Your task to perform on an android device: see sites visited before in the chrome app Image 0: 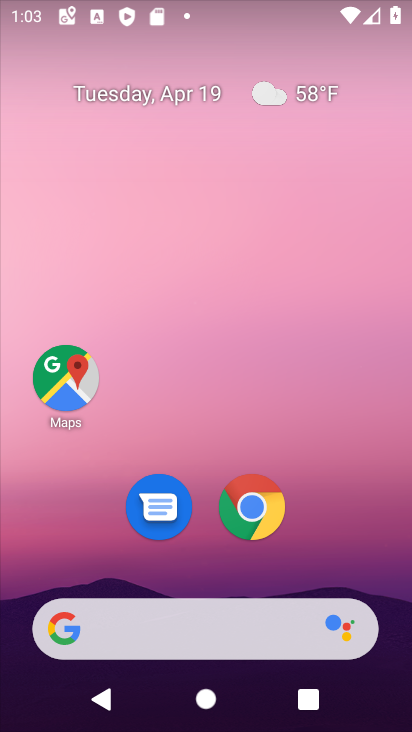
Step 0: click (257, 514)
Your task to perform on an android device: see sites visited before in the chrome app Image 1: 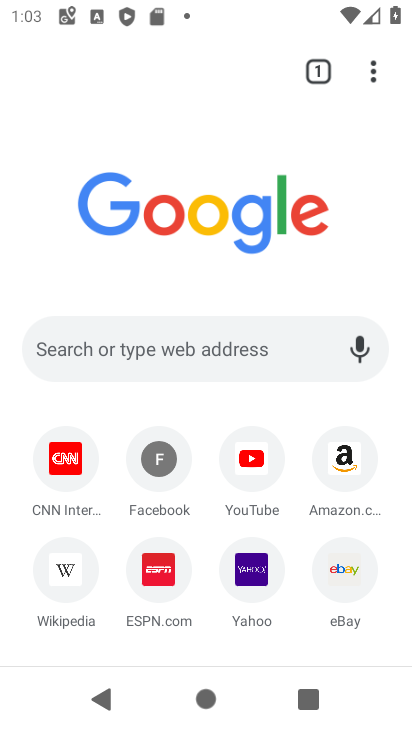
Step 1: click (373, 71)
Your task to perform on an android device: see sites visited before in the chrome app Image 2: 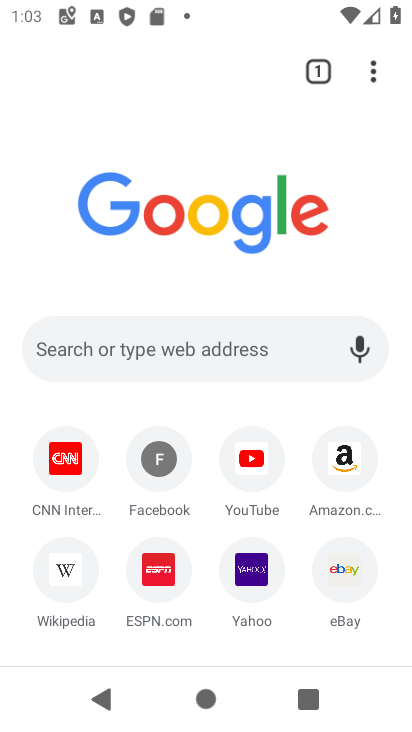
Step 2: click (371, 69)
Your task to perform on an android device: see sites visited before in the chrome app Image 3: 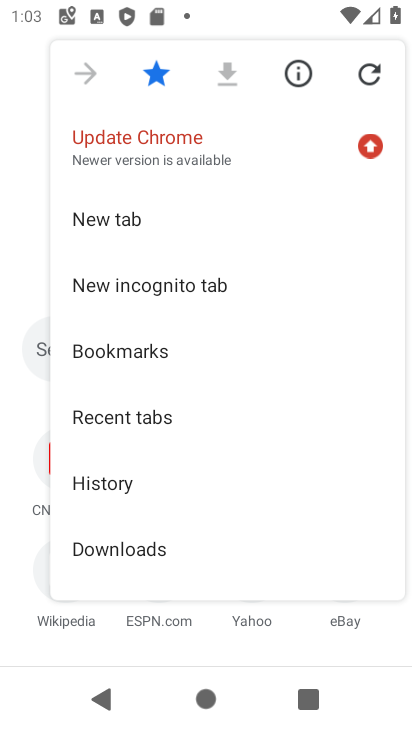
Step 3: click (142, 463)
Your task to perform on an android device: see sites visited before in the chrome app Image 4: 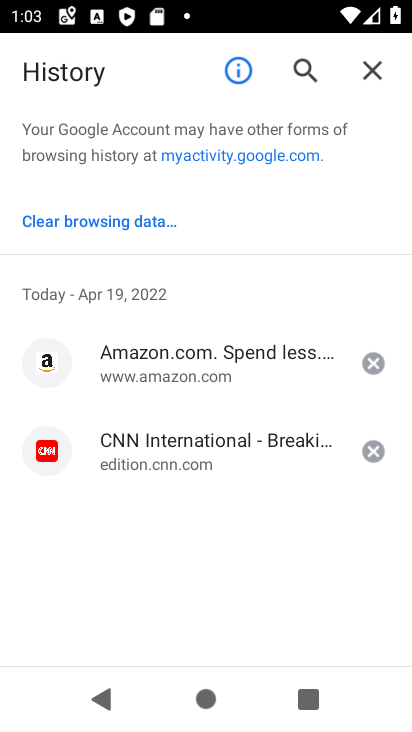
Step 4: task complete